Your task to perform on an android device: Search for Italian restaurants on Maps Image 0: 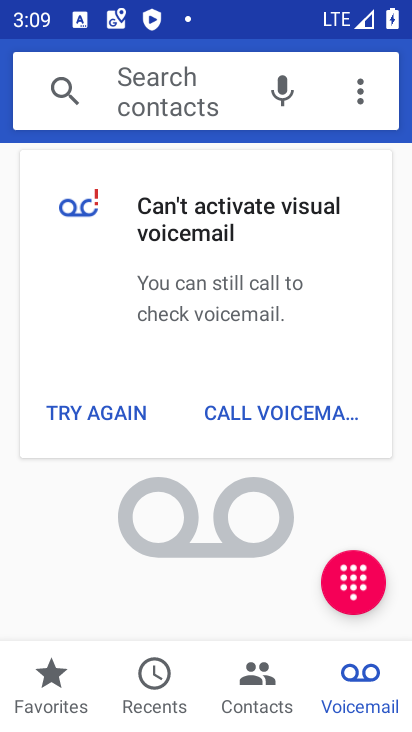
Step 0: press home button
Your task to perform on an android device: Search for Italian restaurants on Maps Image 1: 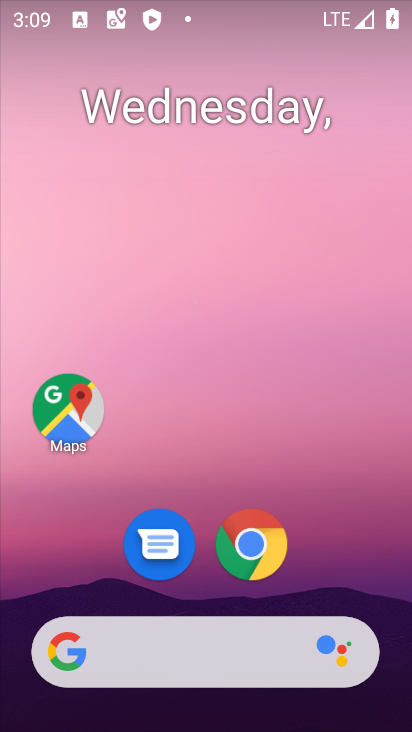
Step 1: click (69, 409)
Your task to perform on an android device: Search for Italian restaurants on Maps Image 2: 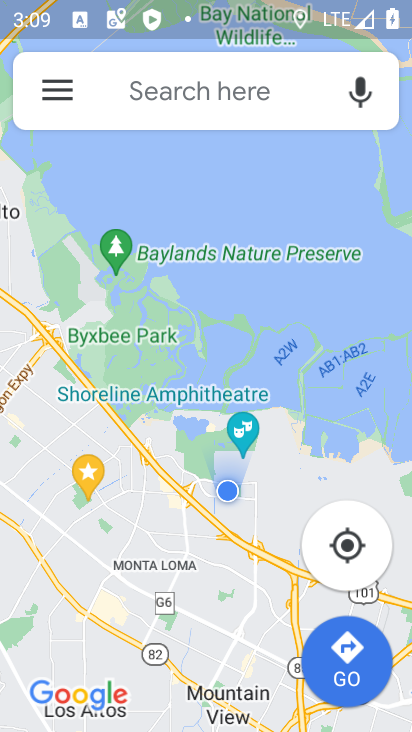
Step 2: click (144, 86)
Your task to perform on an android device: Search for Italian restaurants on Maps Image 3: 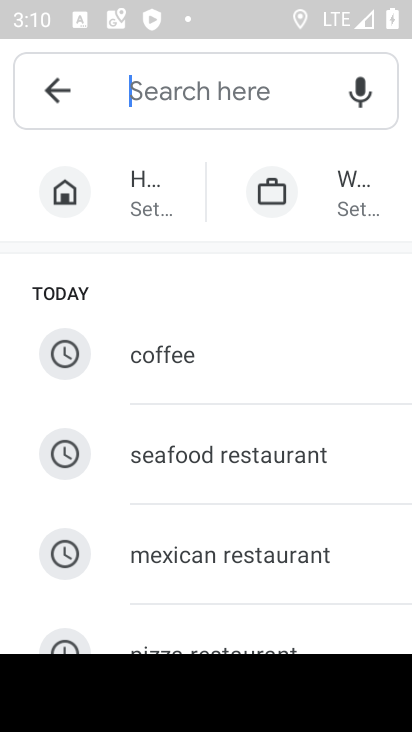
Step 3: type "italian restaurants"
Your task to perform on an android device: Search for Italian restaurants on Maps Image 4: 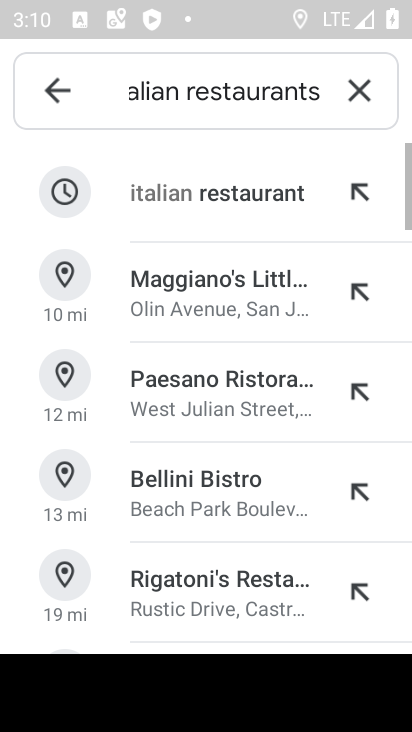
Step 4: click (188, 209)
Your task to perform on an android device: Search for Italian restaurants on Maps Image 5: 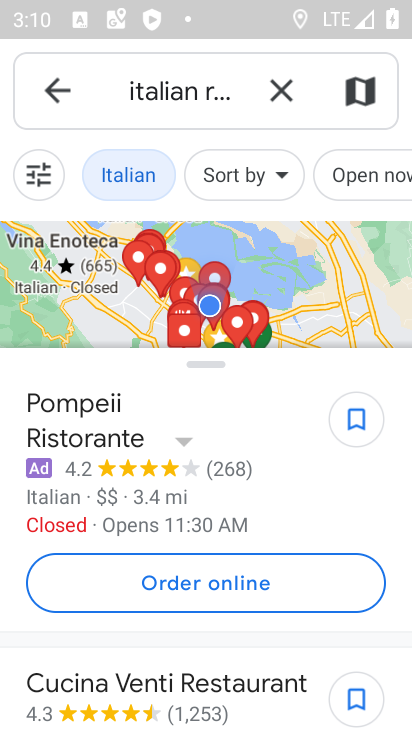
Step 5: task complete